Your task to perform on an android device: open sync settings in chrome Image 0: 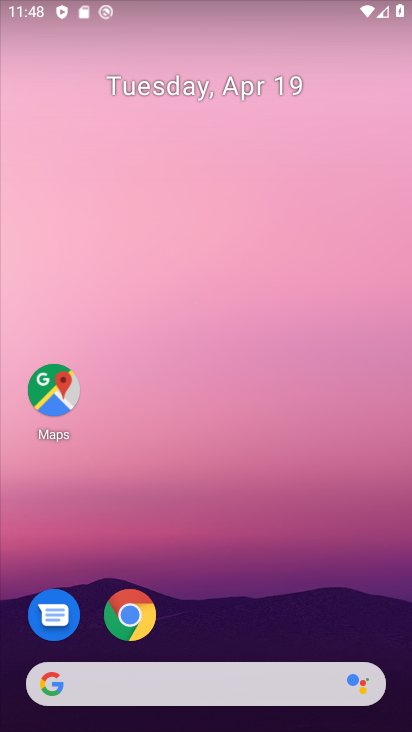
Step 0: click (129, 618)
Your task to perform on an android device: open sync settings in chrome Image 1: 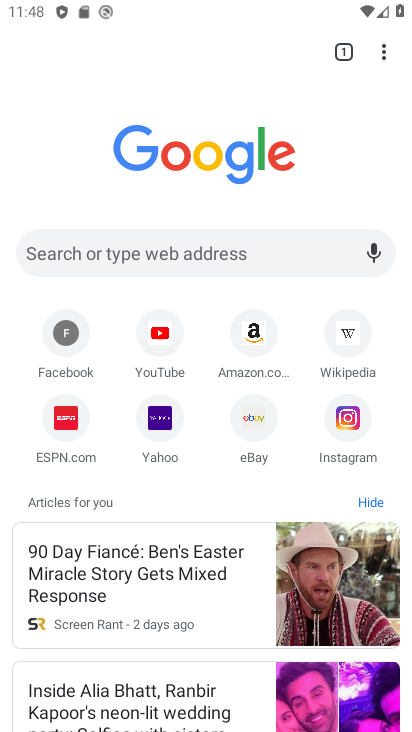
Step 1: click (385, 58)
Your task to perform on an android device: open sync settings in chrome Image 2: 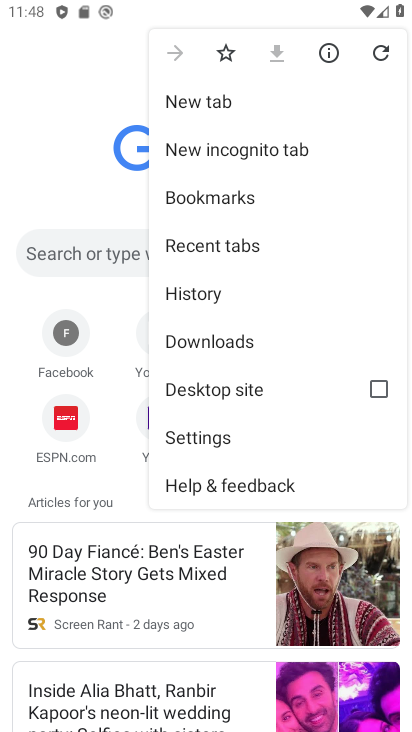
Step 2: click (213, 437)
Your task to perform on an android device: open sync settings in chrome Image 3: 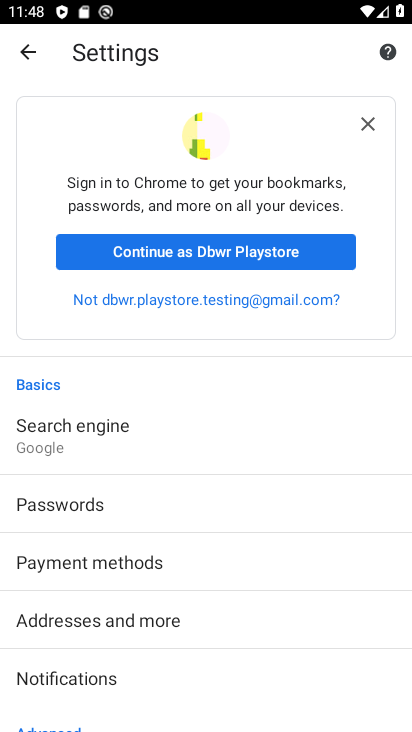
Step 3: click (228, 248)
Your task to perform on an android device: open sync settings in chrome Image 4: 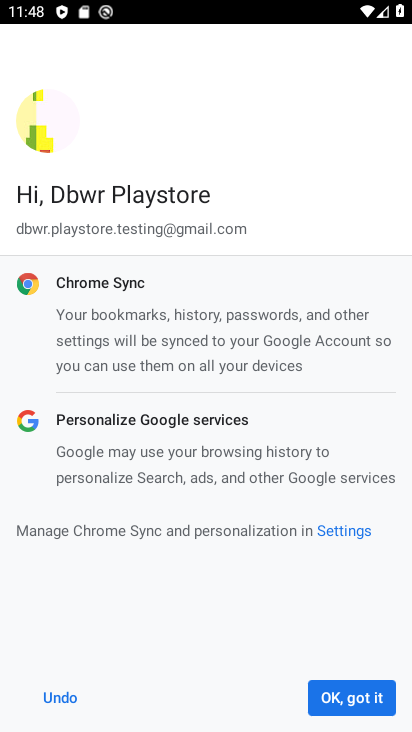
Step 4: click (330, 704)
Your task to perform on an android device: open sync settings in chrome Image 5: 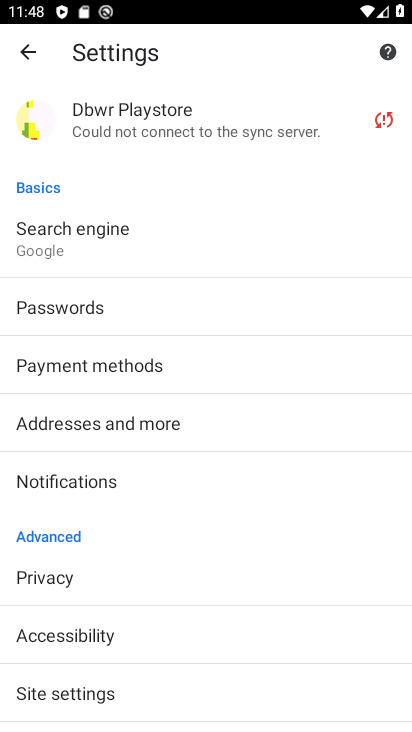
Step 5: click (171, 130)
Your task to perform on an android device: open sync settings in chrome Image 6: 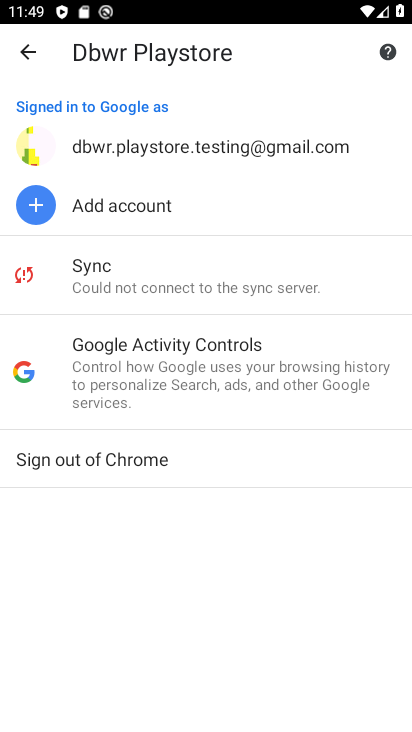
Step 6: click (112, 272)
Your task to perform on an android device: open sync settings in chrome Image 7: 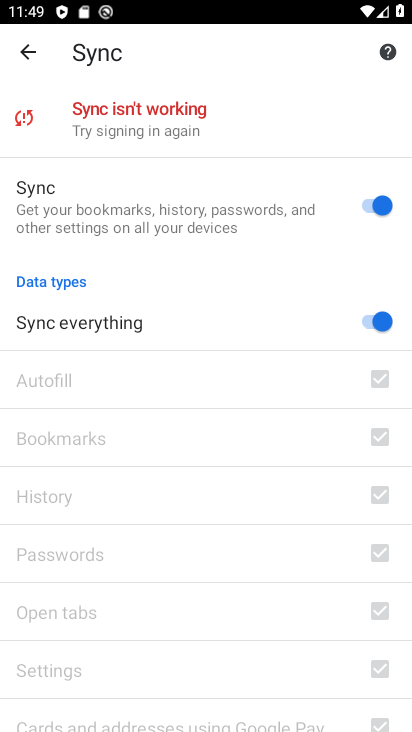
Step 7: task complete